Your task to perform on an android device: change your default location settings in chrome Image 0: 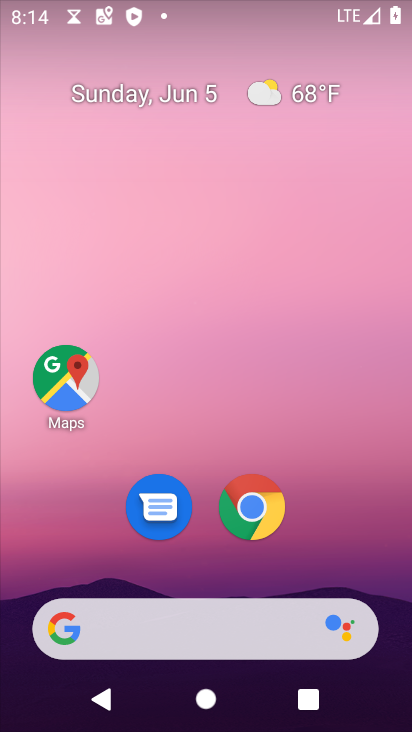
Step 0: click (248, 498)
Your task to perform on an android device: change your default location settings in chrome Image 1: 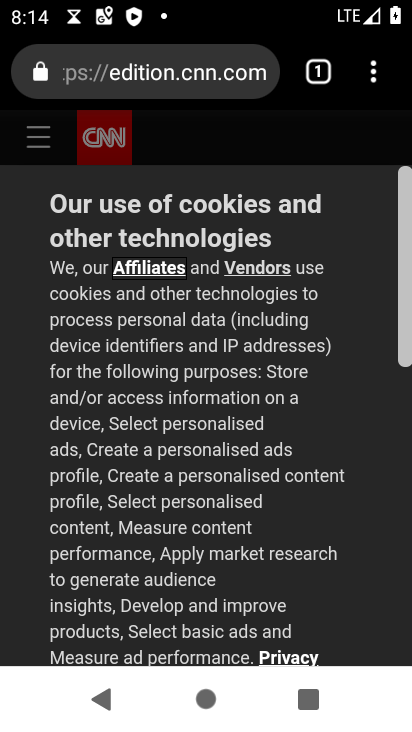
Step 1: click (377, 68)
Your task to perform on an android device: change your default location settings in chrome Image 2: 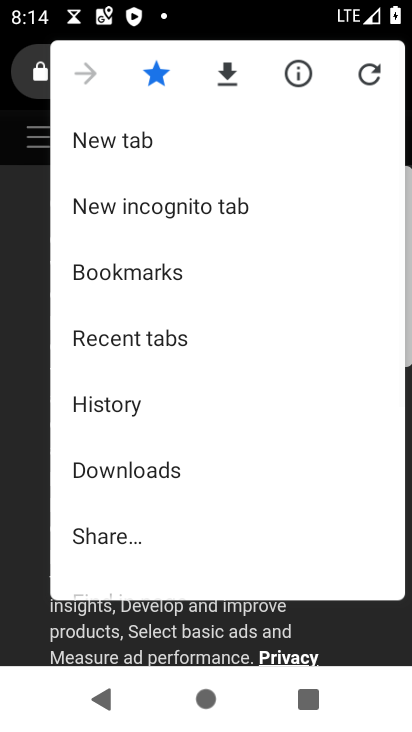
Step 2: drag from (167, 511) to (185, 219)
Your task to perform on an android device: change your default location settings in chrome Image 3: 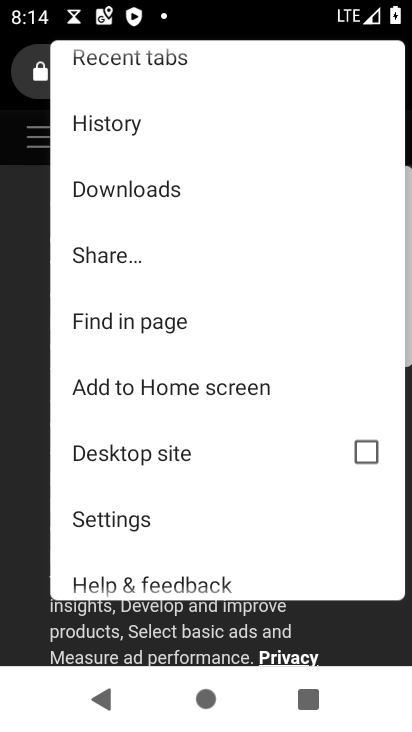
Step 3: drag from (147, 491) to (172, 412)
Your task to perform on an android device: change your default location settings in chrome Image 4: 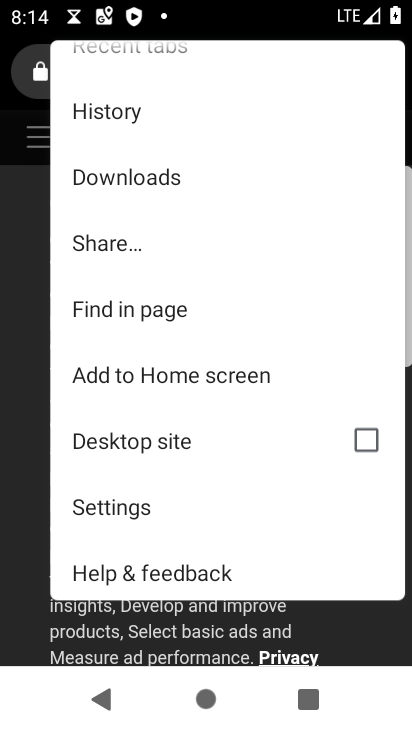
Step 4: click (133, 522)
Your task to perform on an android device: change your default location settings in chrome Image 5: 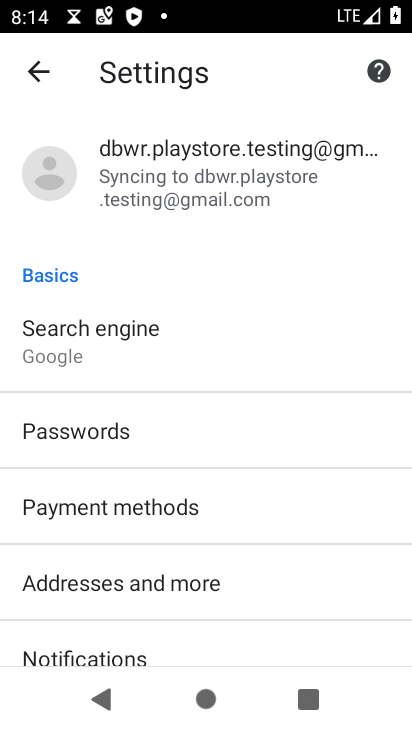
Step 5: drag from (158, 601) to (226, 215)
Your task to perform on an android device: change your default location settings in chrome Image 6: 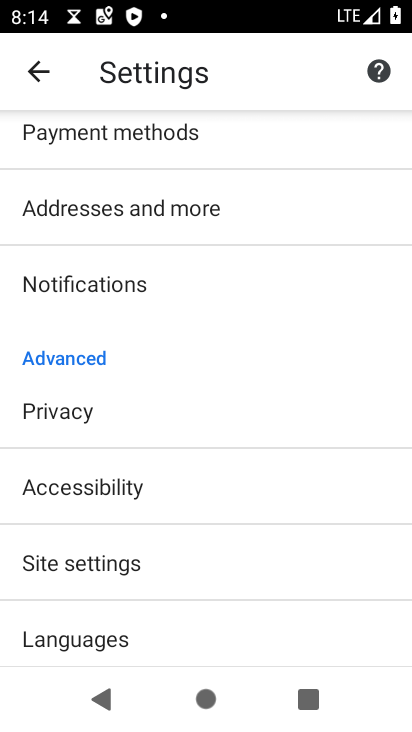
Step 6: drag from (164, 577) to (181, 307)
Your task to perform on an android device: change your default location settings in chrome Image 7: 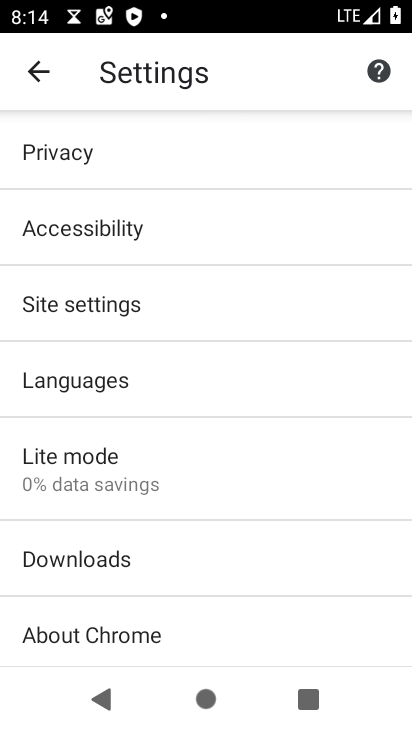
Step 7: click (144, 312)
Your task to perform on an android device: change your default location settings in chrome Image 8: 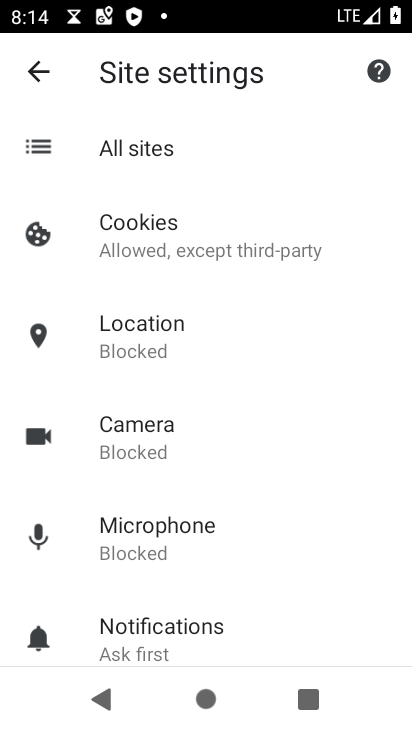
Step 8: click (149, 339)
Your task to perform on an android device: change your default location settings in chrome Image 9: 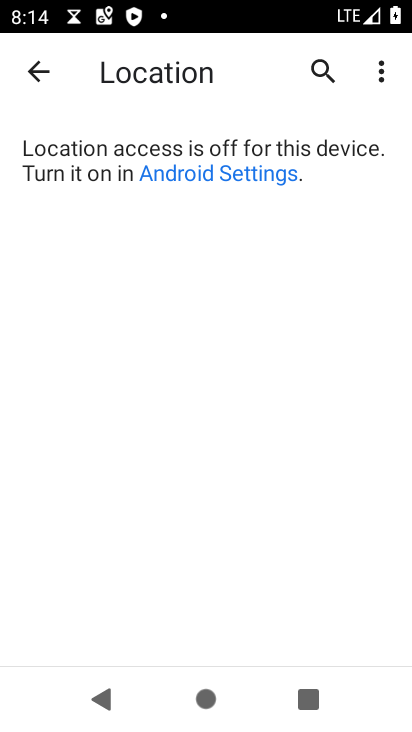
Step 9: click (225, 170)
Your task to perform on an android device: change your default location settings in chrome Image 10: 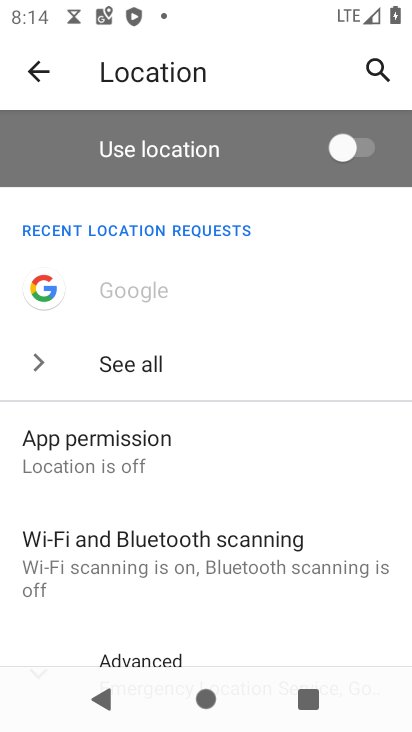
Step 10: click (375, 145)
Your task to perform on an android device: change your default location settings in chrome Image 11: 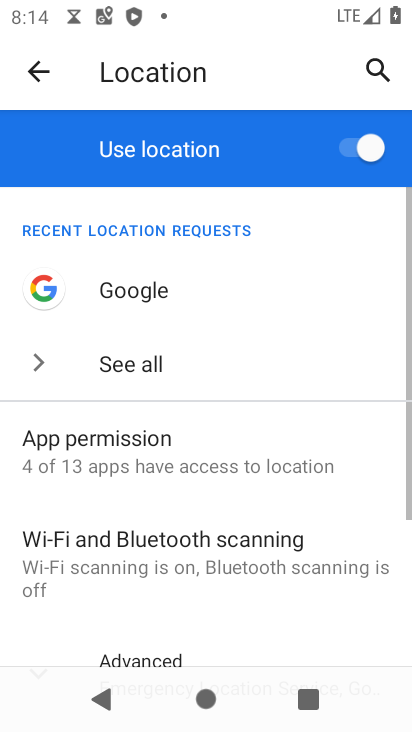
Step 11: task complete